Your task to perform on an android device: Go to location settings Image 0: 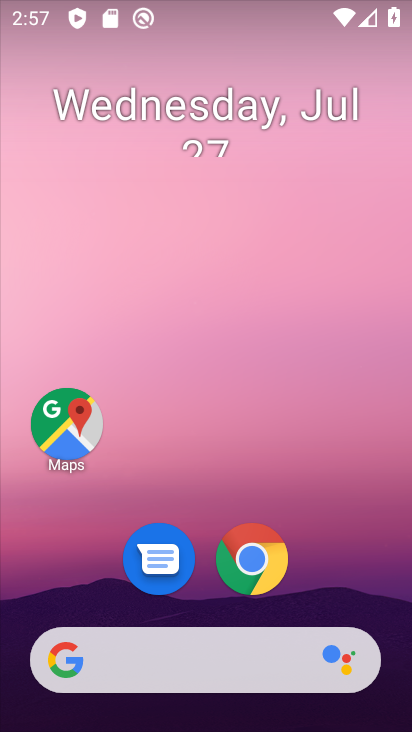
Step 0: drag from (106, 593) to (207, 0)
Your task to perform on an android device: Go to location settings Image 1: 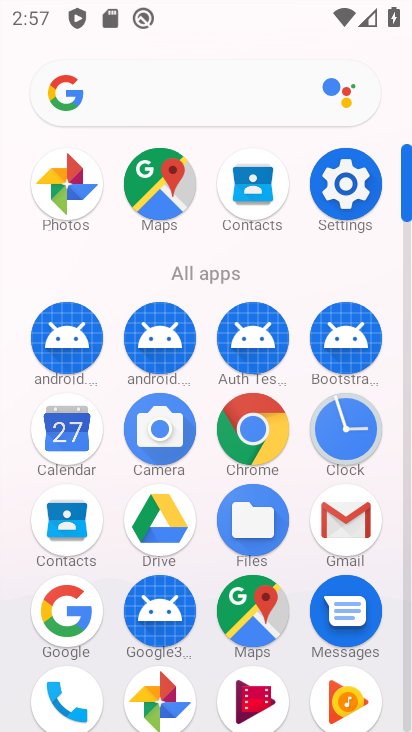
Step 1: click (344, 185)
Your task to perform on an android device: Go to location settings Image 2: 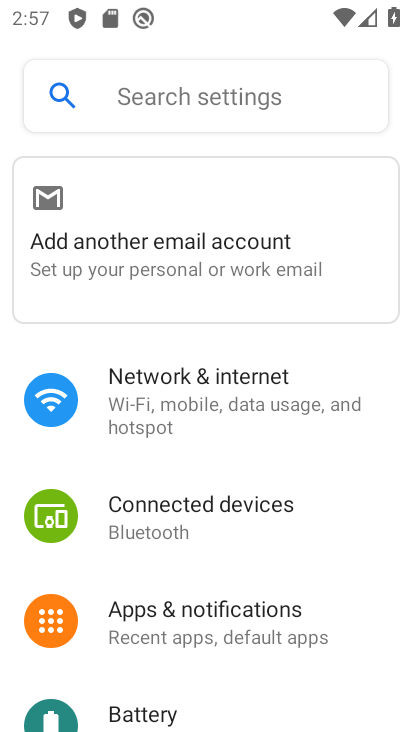
Step 2: drag from (158, 709) to (274, 129)
Your task to perform on an android device: Go to location settings Image 3: 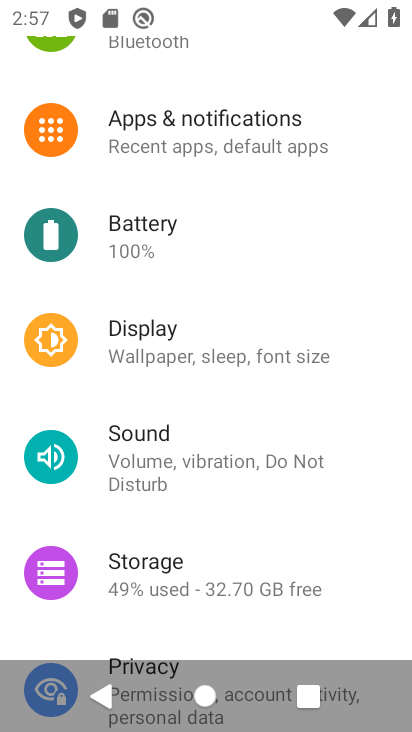
Step 3: drag from (172, 583) to (305, 19)
Your task to perform on an android device: Go to location settings Image 4: 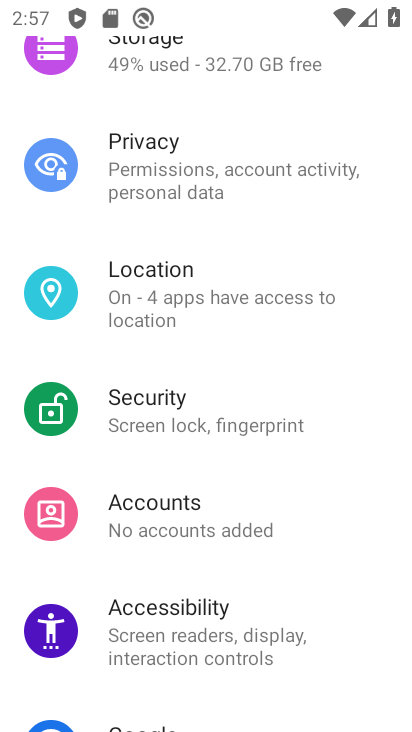
Step 4: click (194, 286)
Your task to perform on an android device: Go to location settings Image 5: 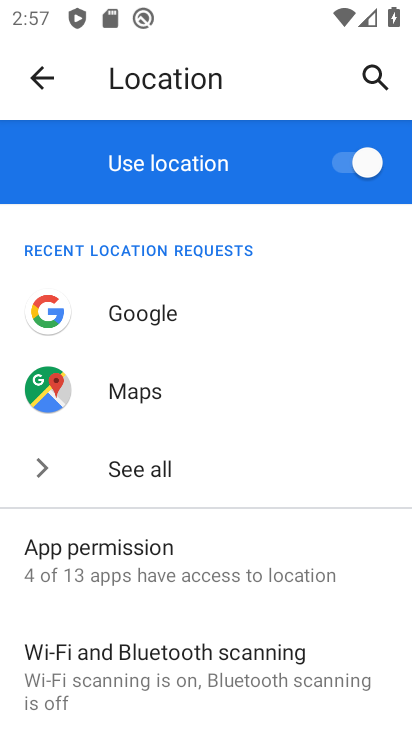
Step 5: task complete